Your task to perform on an android device: create a new album in the google photos Image 0: 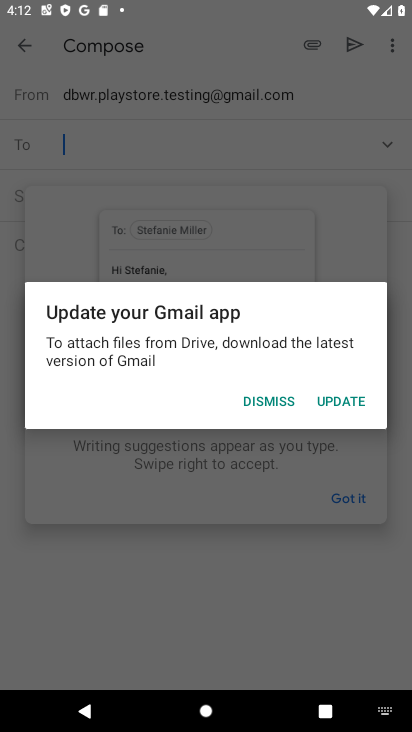
Step 0: press home button
Your task to perform on an android device: create a new album in the google photos Image 1: 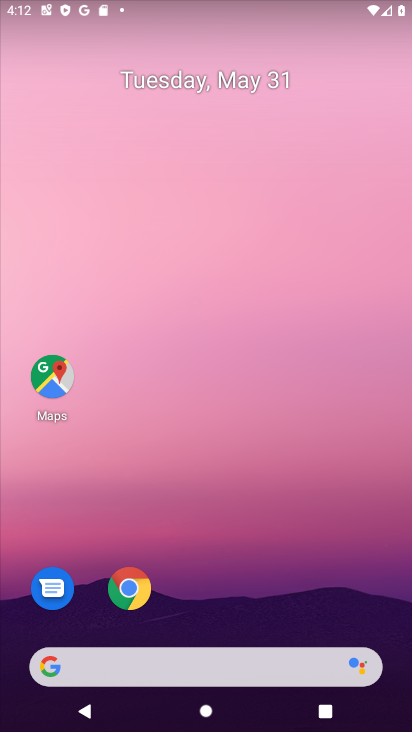
Step 1: drag from (206, 252) to (218, 84)
Your task to perform on an android device: create a new album in the google photos Image 2: 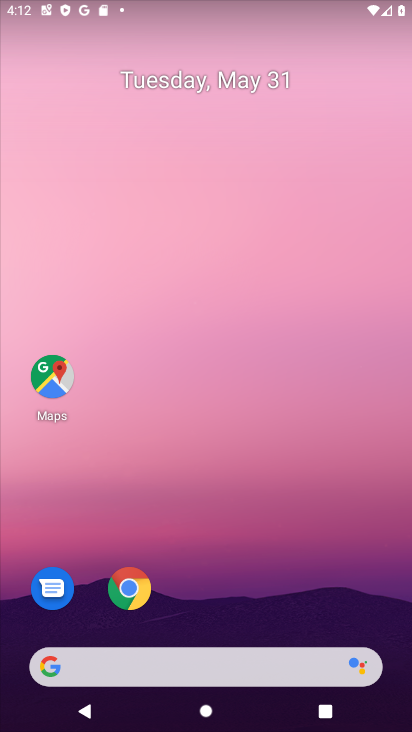
Step 2: drag from (225, 617) to (284, 3)
Your task to perform on an android device: create a new album in the google photos Image 3: 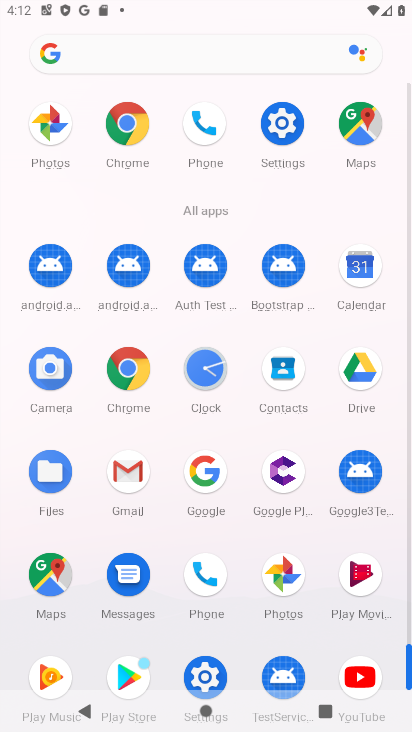
Step 3: click (43, 126)
Your task to perform on an android device: create a new album in the google photos Image 4: 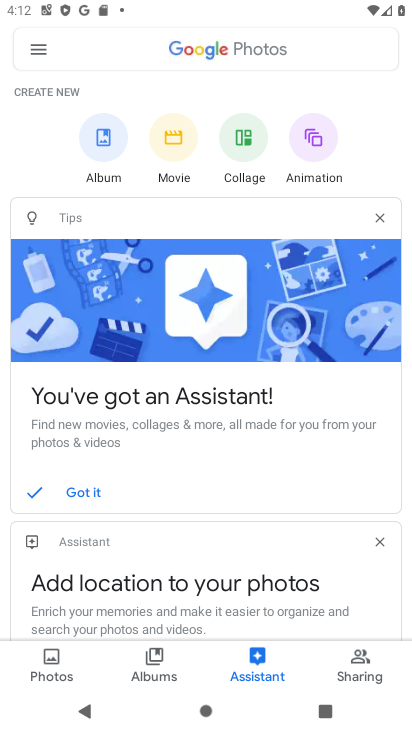
Step 4: click (52, 659)
Your task to perform on an android device: create a new album in the google photos Image 5: 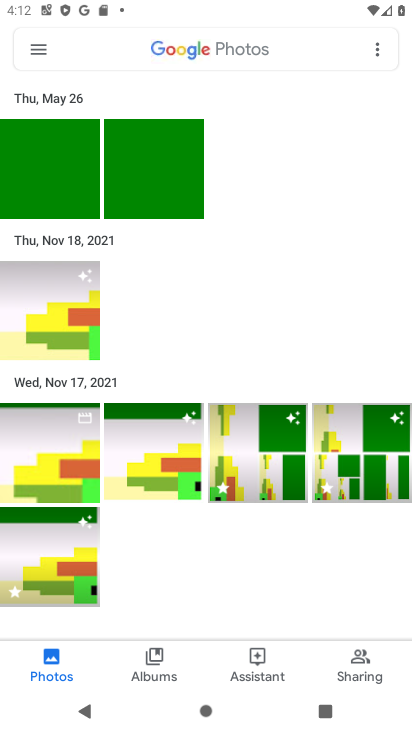
Step 5: click (131, 387)
Your task to perform on an android device: create a new album in the google photos Image 6: 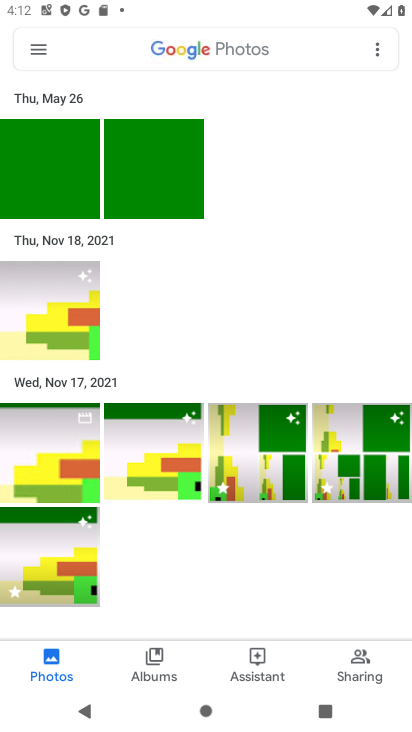
Step 6: click (143, 385)
Your task to perform on an android device: create a new album in the google photos Image 7: 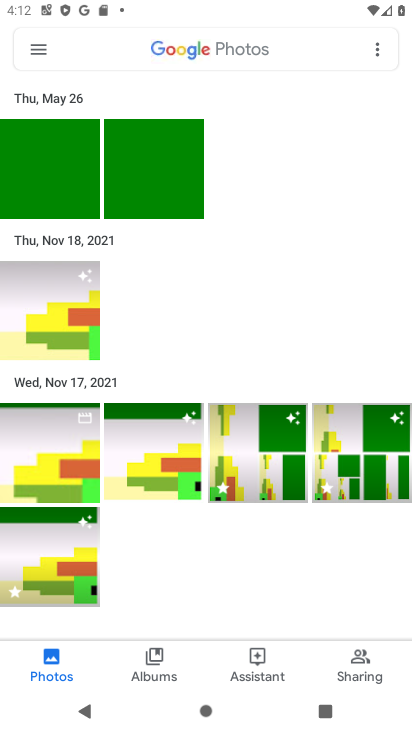
Step 7: click (143, 385)
Your task to perform on an android device: create a new album in the google photos Image 8: 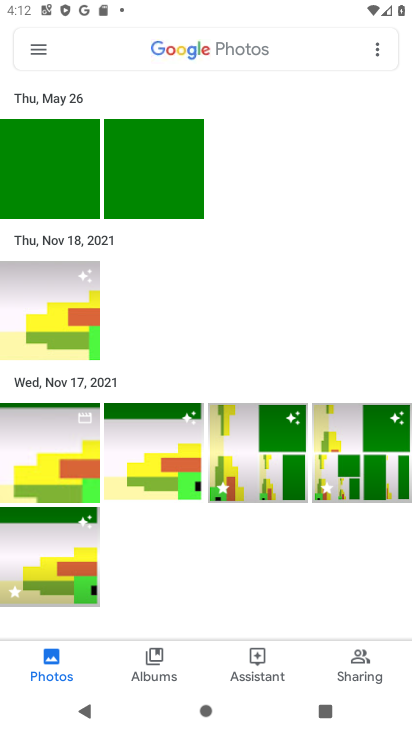
Step 8: click (143, 385)
Your task to perform on an android device: create a new album in the google photos Image 9: 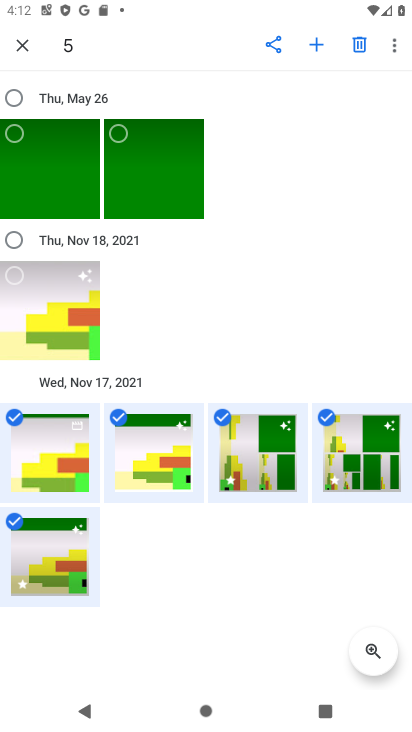
Step 9: click (322, 38)
Your task to perform on an android device: create a new album in the google photos Image 10: 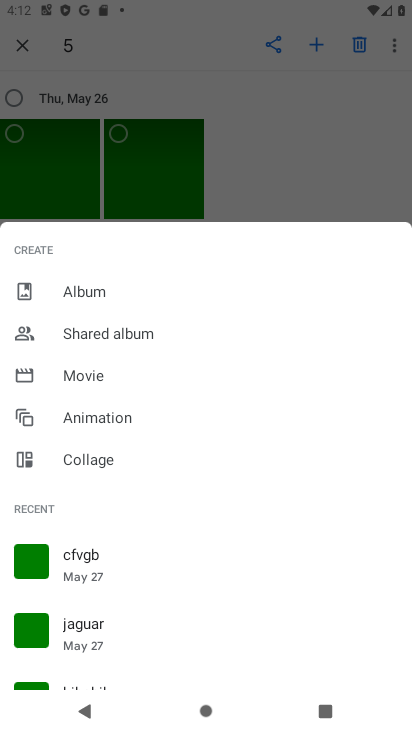
Step 10: click (132, 294)
Your task to perform on an android device: create a new album in the google photos Image 11: 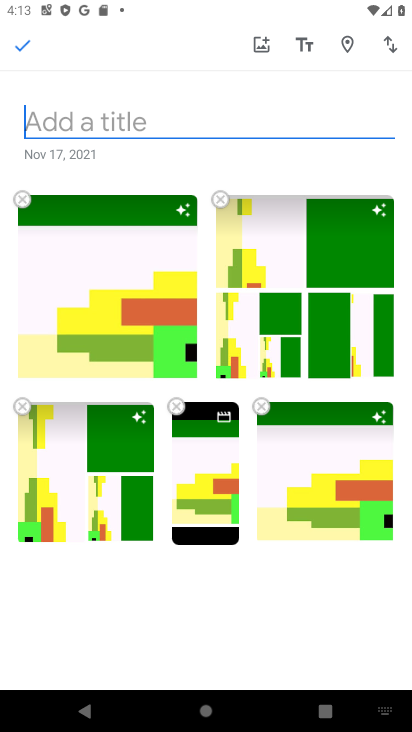
Step 11: type "nyytybervw"
Your task to perform on an android device: create a new album in the google photos Image 12: 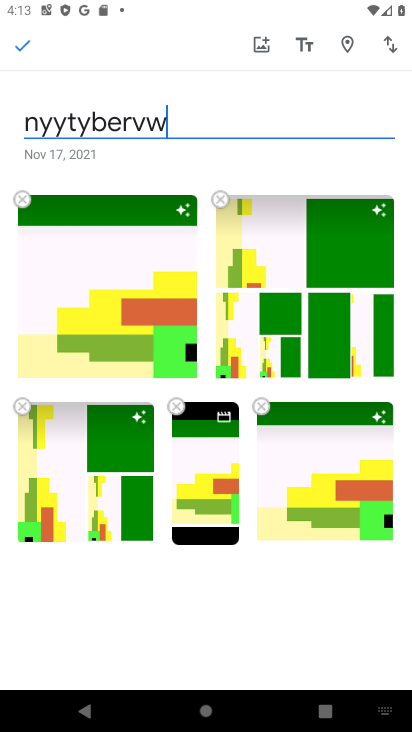
Step 12: click (30, 51)
Your task to perform on an android device: create a new album in the google photos Image 13: 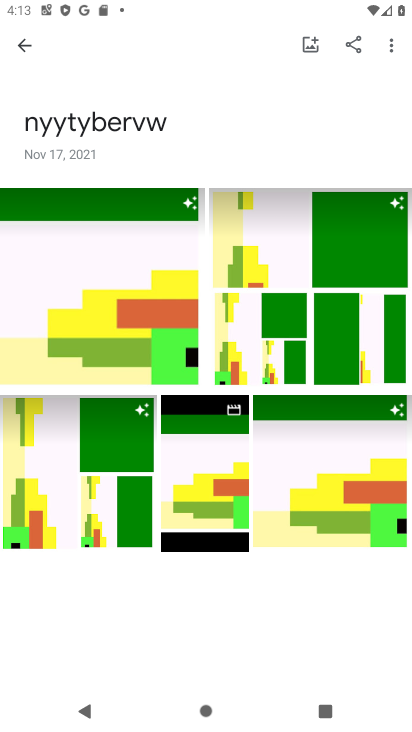
Step 13: task complete